Your task to perform on an android device: change text size in settings app Image 0: 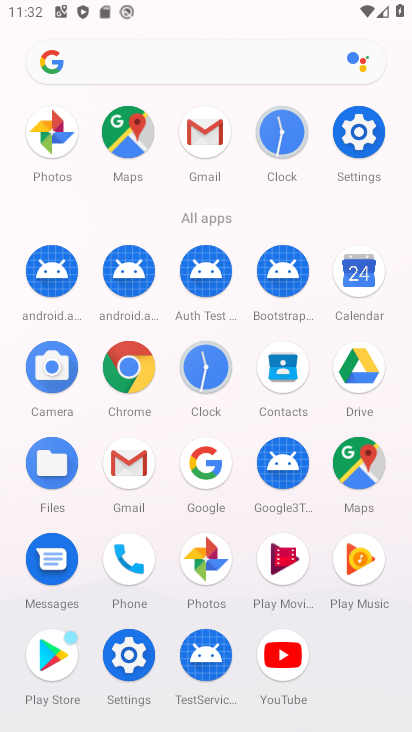
Step 0: click (343, 148)
Your task to perform on an android device: change text size in settings app Image 1: 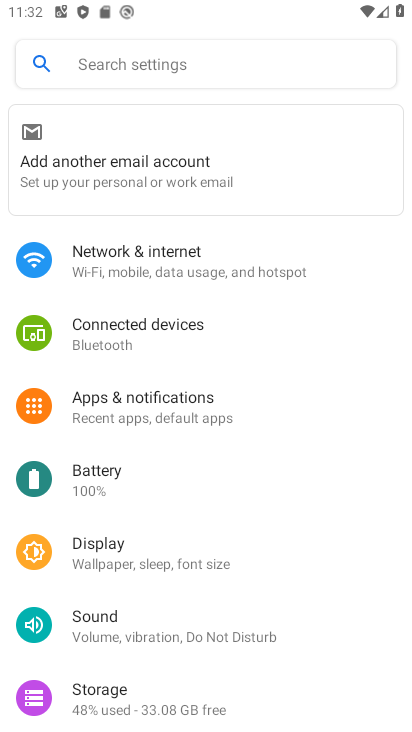
Step 1: drag from (224, 265) to (215, 227)
Your task to perform on an android device: change text size in settings app Image 2: 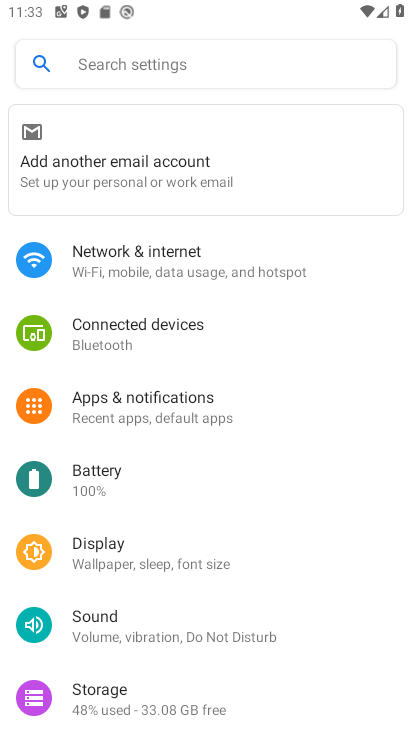
Step 2: click (105, 559)
Your task to perform on an android device: change text size in settings app Image 3: 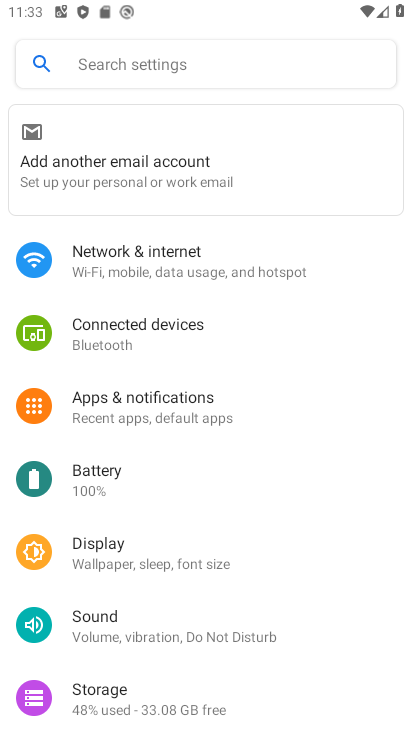
Step 3: click (117, 555)
Your task to perform on an android device: change text size in settings app Image 4: 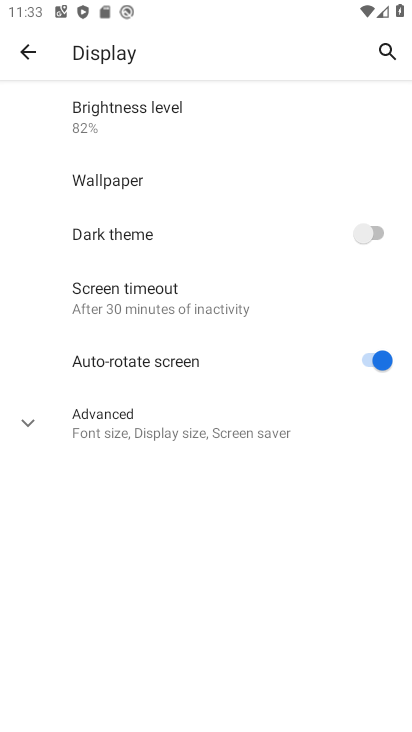
Step 4: click (126, 411)
Your task to perform on an android device: change text size in settings app Image 5: 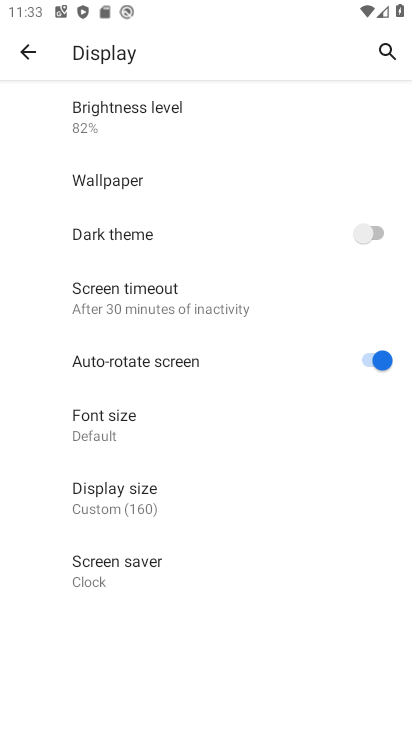
Step 5: click (86, 436)
Your task to perform on an android device: change text size in settings app Image 6: 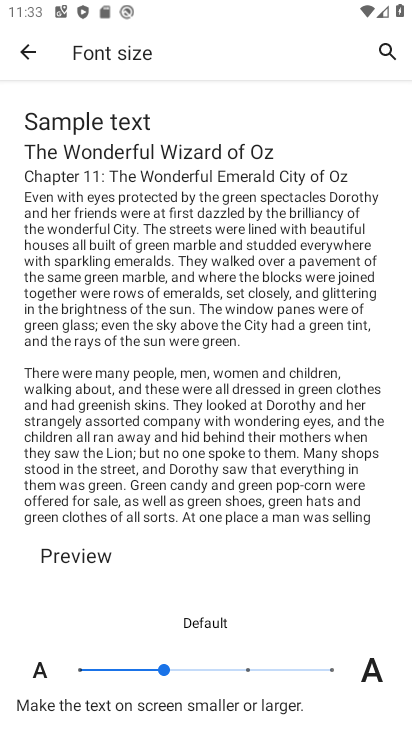
Step 6: click (236, 677)
Your task to perform on an android device: change text size in settings app Image 7: 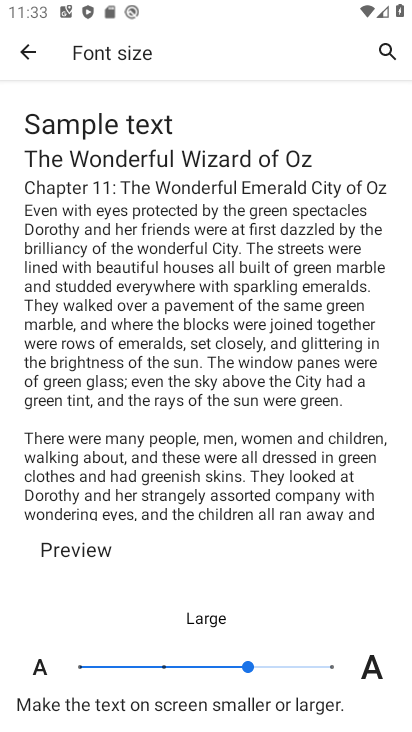
Step 7: task complete